Your task to perform on an android device: Clear the cart on amazon. Add jbl charge 4 to the cart on amazon Image 0: 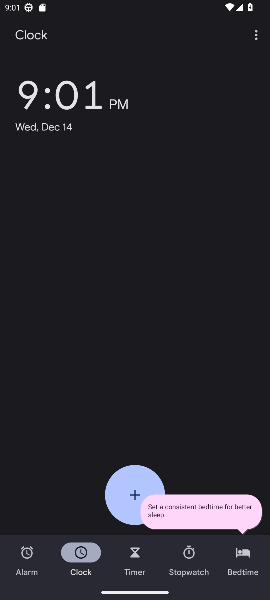
Step 0: press home button
Your task to perform on an android device: Clear the cart on amazon. Add jbl charge 4 to the cart on amazon Image 1: 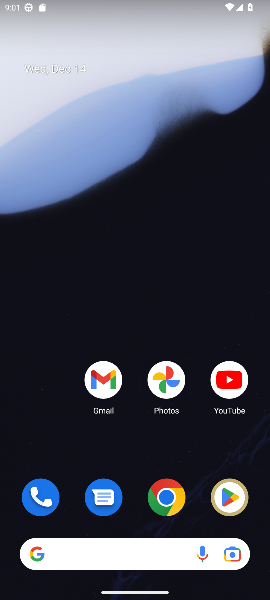
Step 1: click (171, 499)
Your task to perform on an android device: Clear the cart on amazon. Add jbl charge 4 to the cart on amazon Image 2: 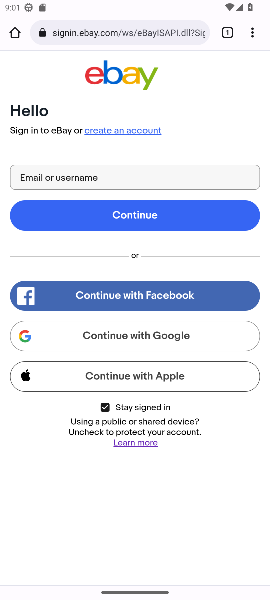
Step 2: click (89, 37)
Your task to perform on an android device: Clear the cart on amazon. Add jbl charge 4 to the cart on amazon Image 3: 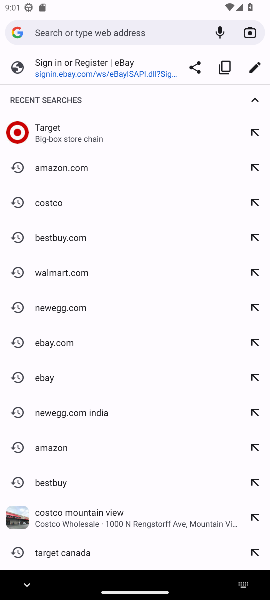
Step 3: type "amazon"
Your task to perform on an android device: Clear the cart on amazon. Add jbl charge 4 to the cart on amazon Image 4: 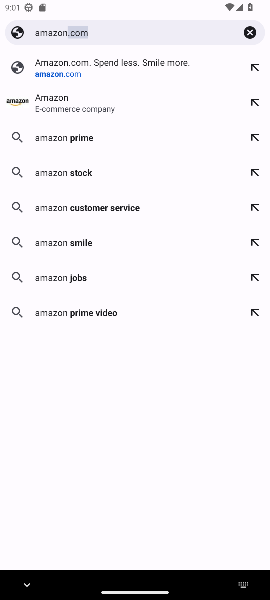
Step 4: click (79, 67)
Your task to perform on an android device: Clear the cart on amazon. Add jbl charge 4 to the cart on amazon Image 5: 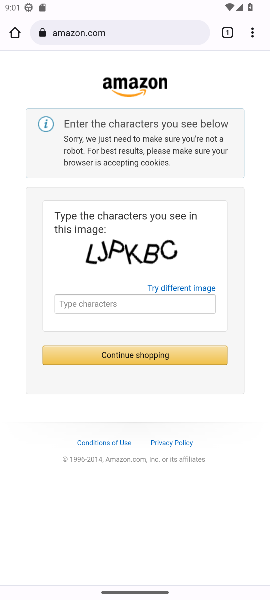
Step 5: click (112, 305)
Your task to perform on an android device: Clear the cart on amazon. Add jbl charge 4 to the cart on amazon Image 6: 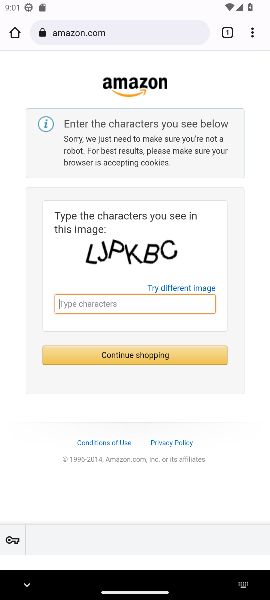
Step 6: type "LJPKBC"
Your task to perform on an android device: Clear the cart on amazon. Add jbl charge 4 to the cart on amazon Image 7: 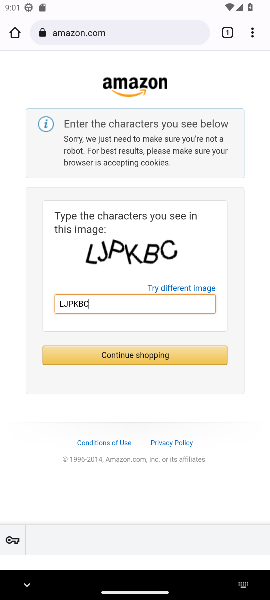
Step 7: click (138, 363)
Your task to perform on an android device: Clear the cart on amazon. Add jbl charge 4 to the cart on amazon Image 8: 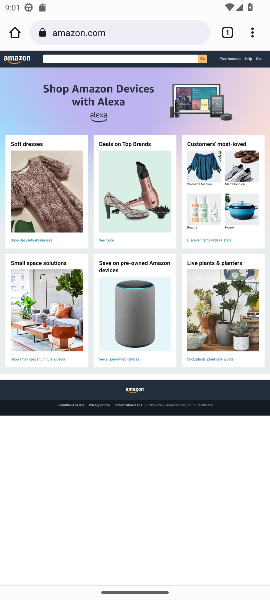
Step 8: click (253, 30)
Your task to perform on an android device: Clear the cart on amazon. Add jbl charge 4 to the cart on amazon Image 9: 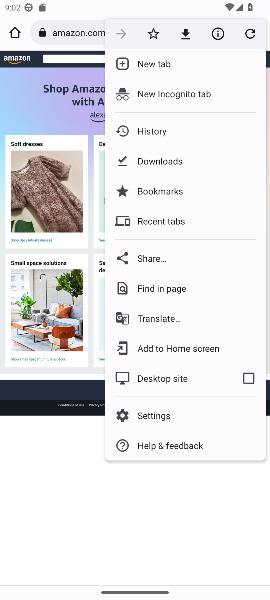
Step 9: click (253, 30)
Your task to perform on an android device: Clear the cart on amazon. Add jbl charge 4 to the cart on amazon Image 10: 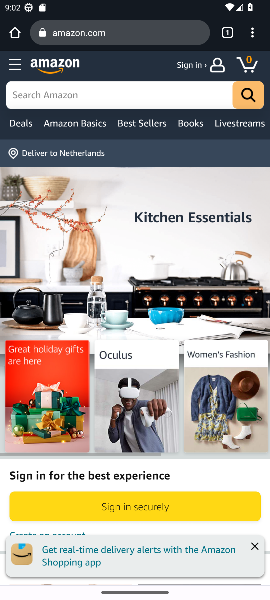
Step 10: click (174, 97)
Your task to perform on an android device: Clear the cart on amazon. Add jbl charge 4 to the cart on amazon Image 11: 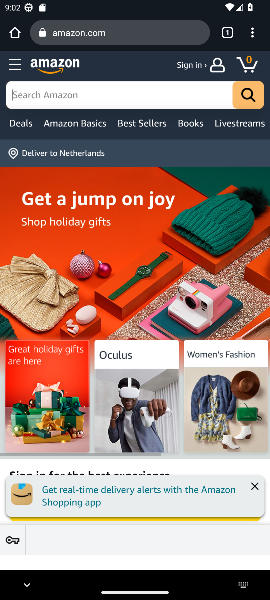
Step 11: type "jbl charge 4"
Your task to perform on an android device: Clear the cart on amazon. Add jbl charge 4 to the cart on amazon Image 12: 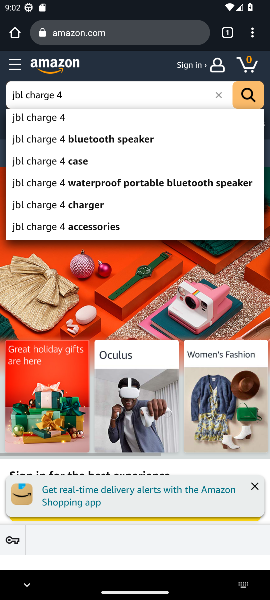
Step 12: press enter
Your task to perform on an android device: Clear the cart on amazon. Add jbl charge 4 to the cart on amazon Image 13: 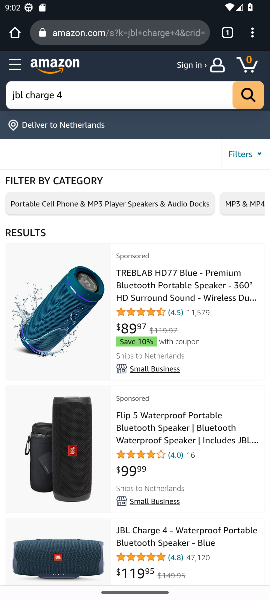
Step 13: click (161, 546)
Your task to perform on an android device: Clear the cart on amazon. Add jbl charge 4 to the cart on amazon Image 14: 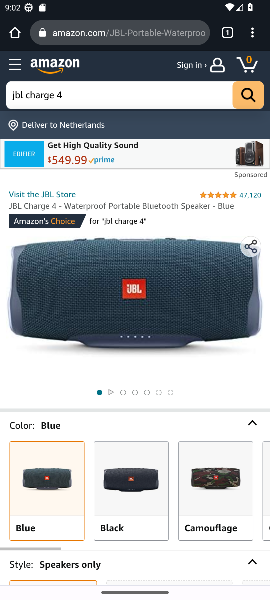
Step 14: drag from (176, 403) to (182, 52)
Your task to perform on an android device: Clear the cart on amazon. Add jbl charge 4 to the cart on amazon Image 15: 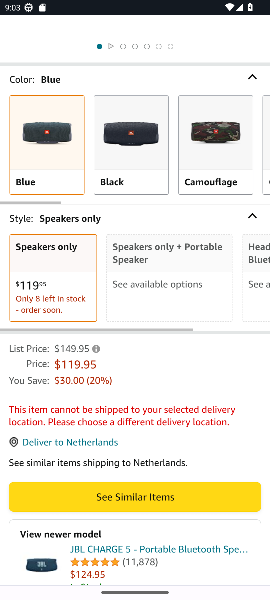
Step 15: click (104, 134)
Your task to perform on an android device: Clear the cart on amazon. Add jbl charge 4 to the cart on amazon Image 16: 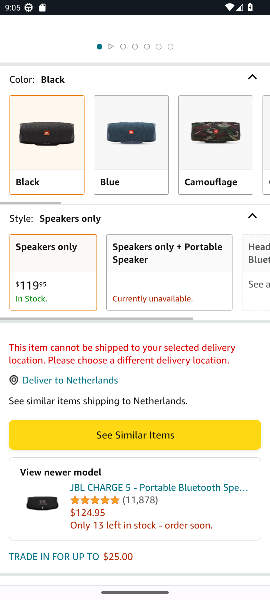
Step 16: task complete